Your task to perform on an android device: Show me popular games on the Play Store Image 0: 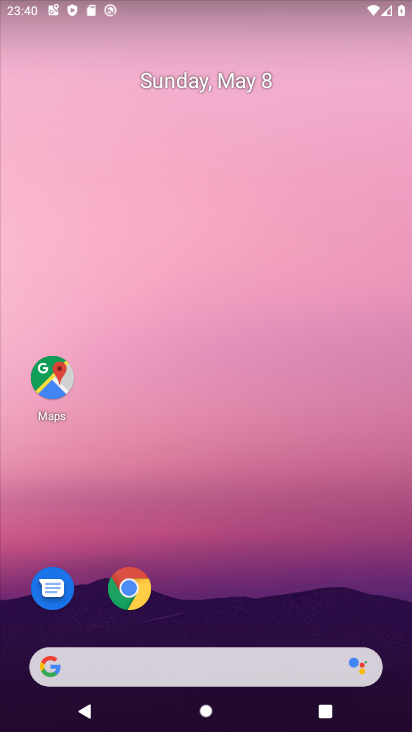
Step 0: drag from (266, 530) to (203, 86)
Your task to perform on an android device: Show me popular games on the Play Store Image 1: 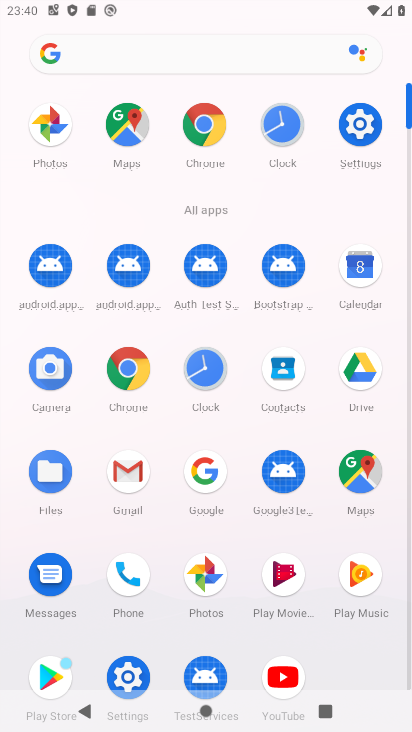
Step 1: click (44, 665)
Your task to perform on an android device: Show me popular games on the Play Store Image 2: 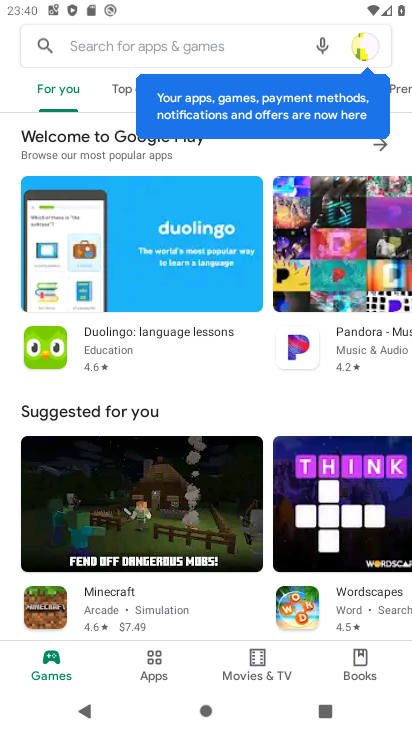
Step 2: task complete